Your task to perform on an android device: Do I have any events tomorrow? Image 0: 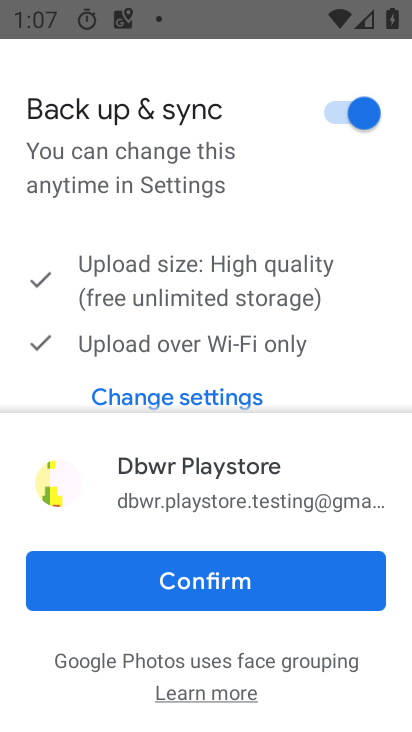
Step 0: press home button
Your task to perform on an android device: Do I have any events tomorrow? Image 1: 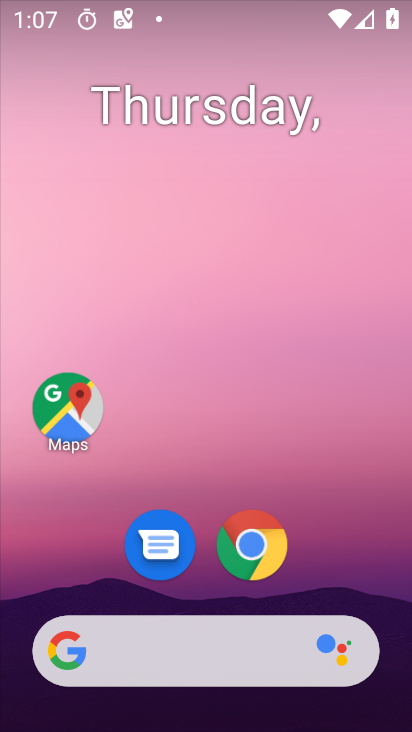
Step 1: drag from (302, 651) to (221, 98)
Your task to perform on an android device: Do I have any events tomorrow? Image 2: 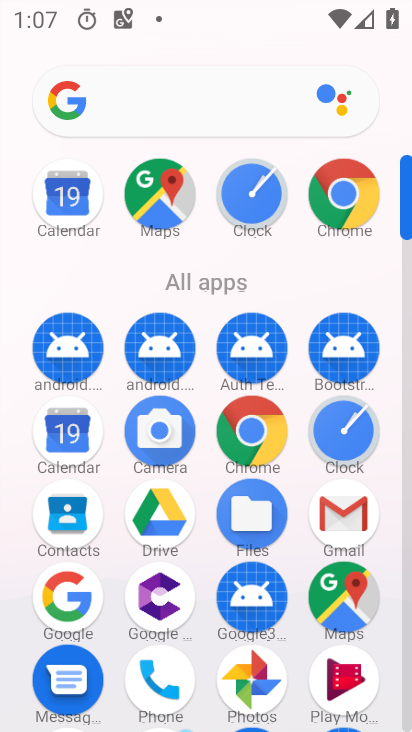
Step 2: click (56, 424)
Your task to perform on an android device: Do I have any events tomorrow? Image 3: 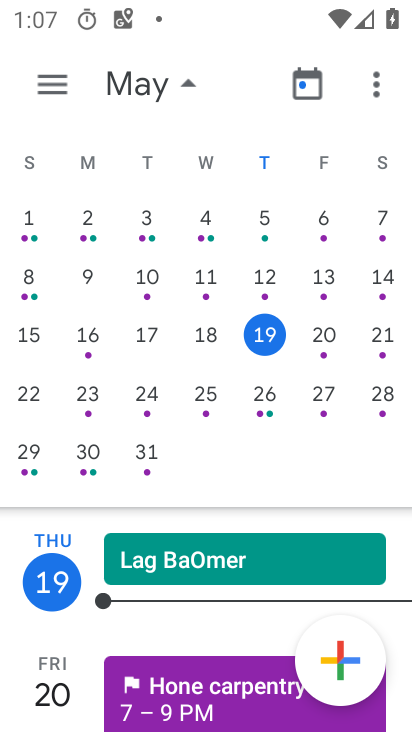
Step 3: click (316, 326)
Your task to perform on an android device: Do I have any events tomorrow? Image 4: 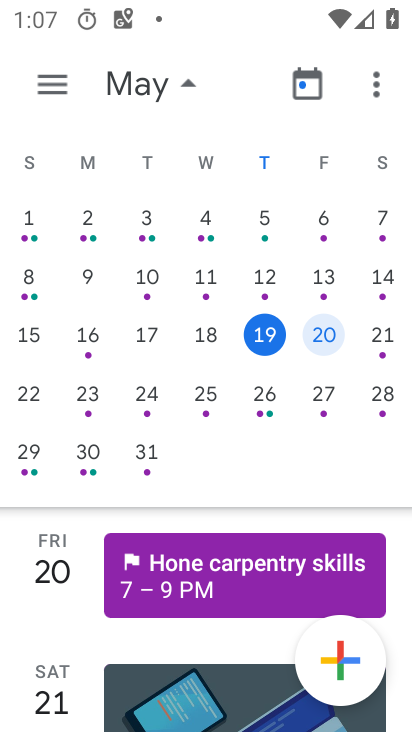
Step 4: task complete